Your task to perform on an android device: open app "Chime – Mobile Banking" (install if not already installed) and go to login screen Image 0: 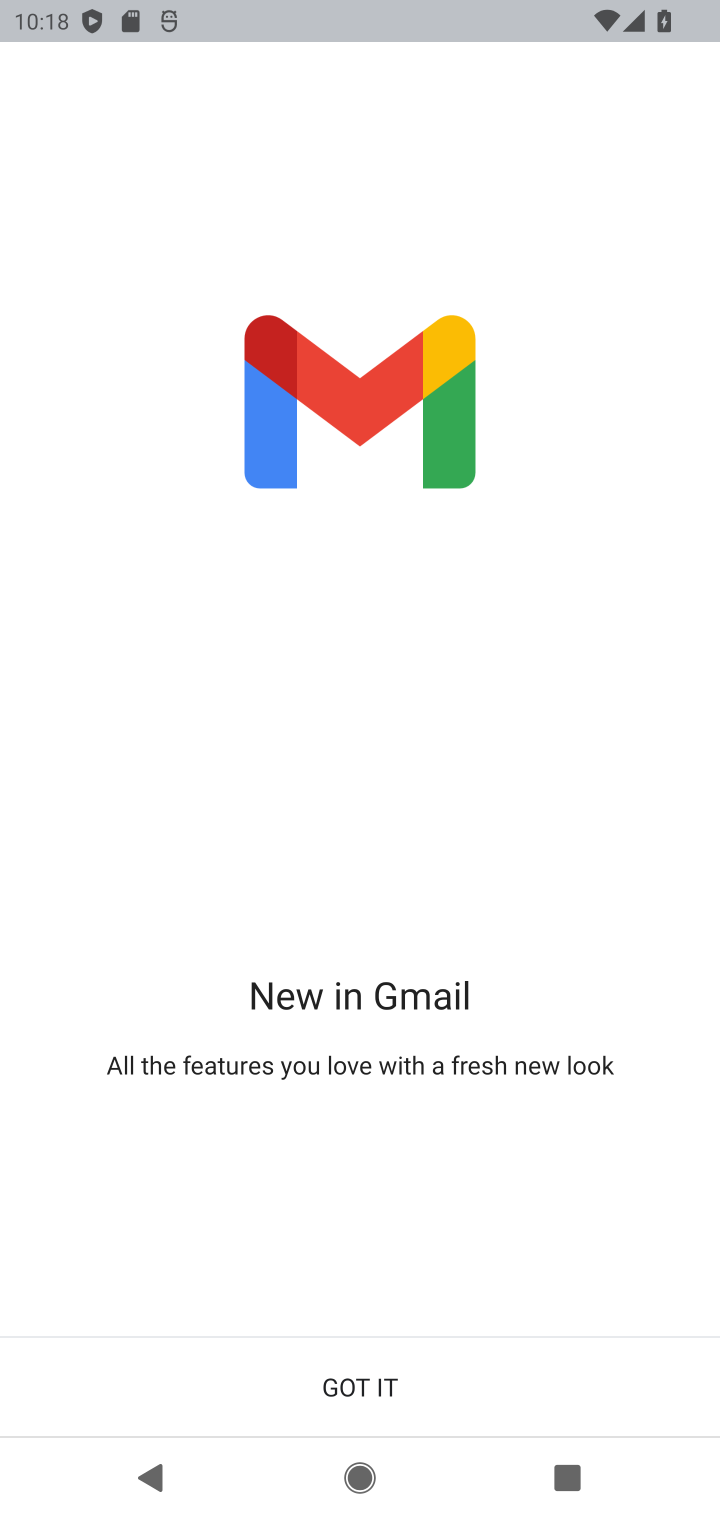
Step 0: press home button
Your task to perform on an android device: open app "Chime – Mobile Banking" (install if not already installed) and go to login screen Image 1: 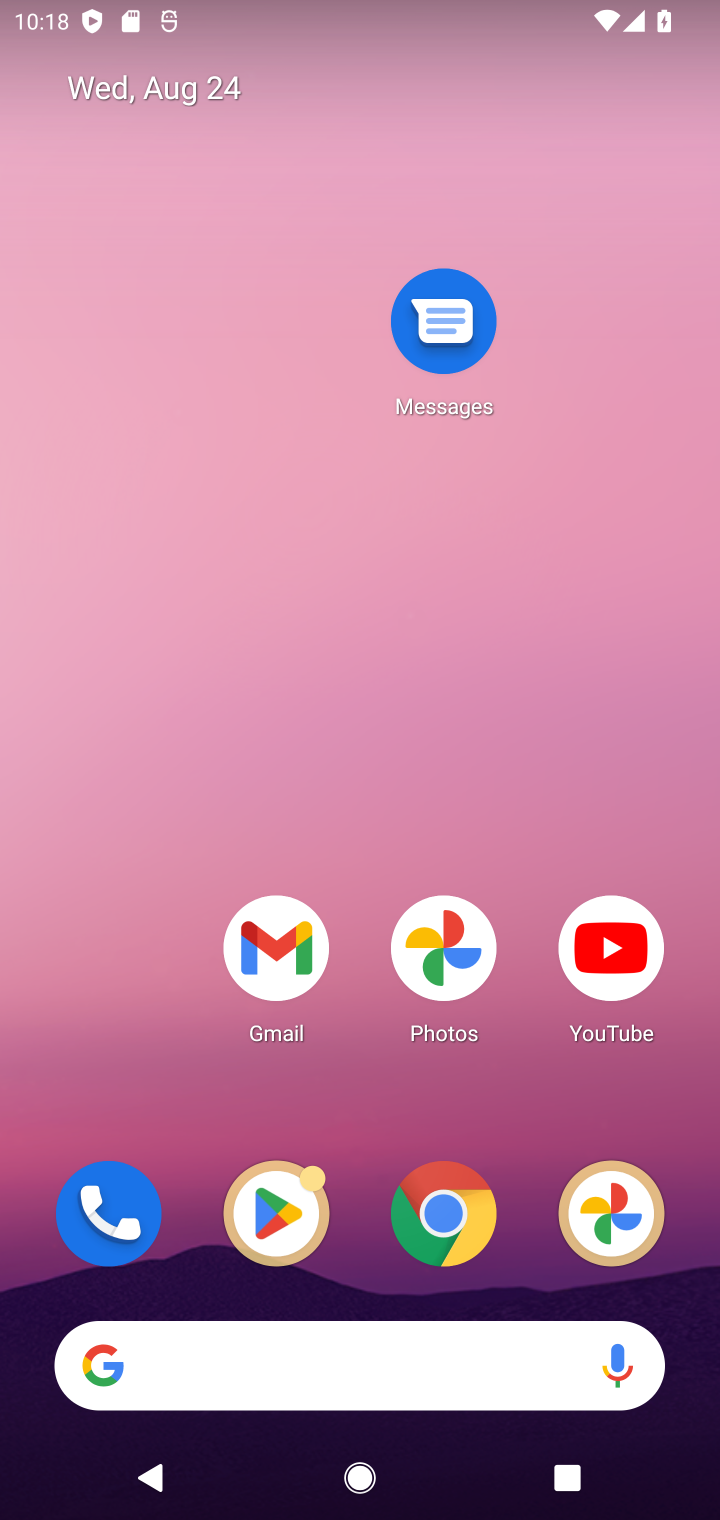
Step 1: click (269, 1218)
Your task to perform on an android device: open app "Chime – Mobile Banking" (install if not already installed) and go to login screen Image 2: 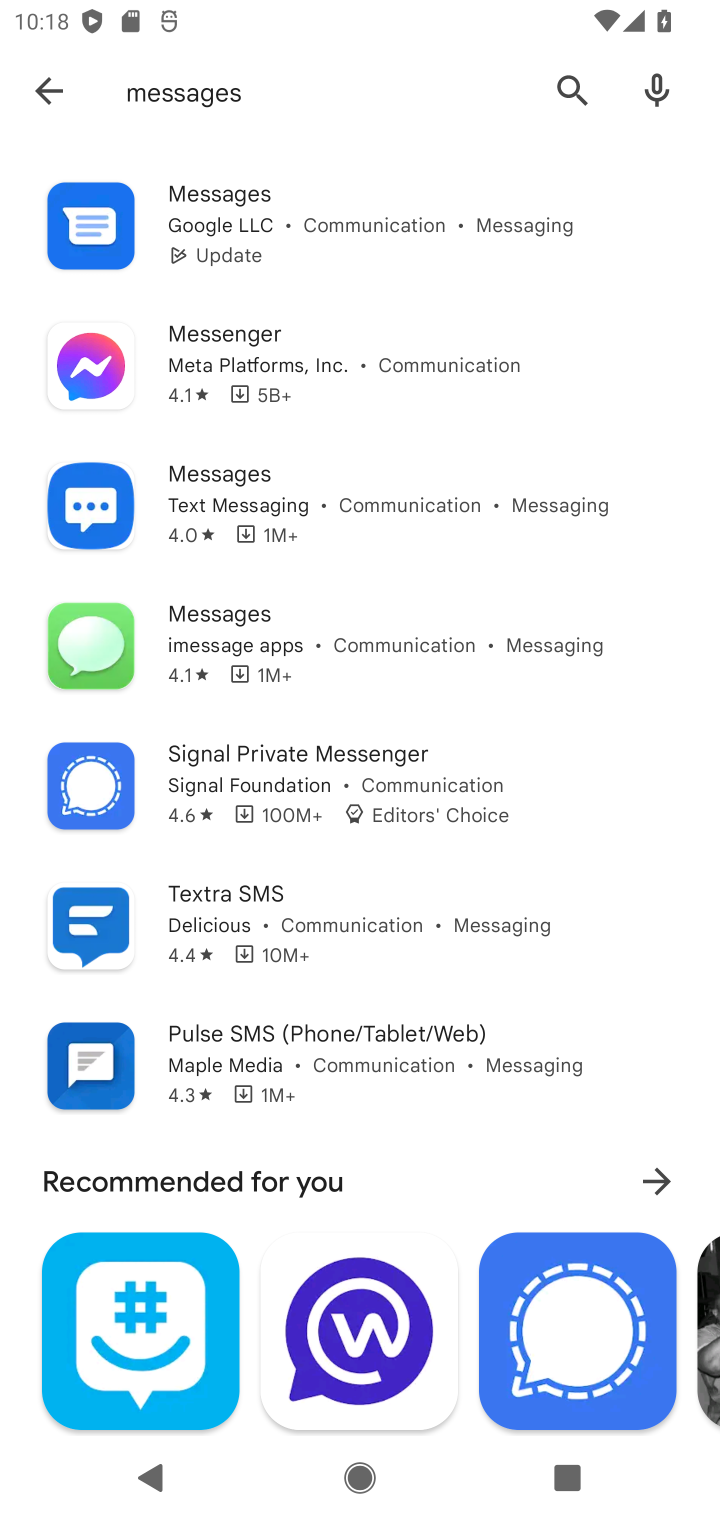
Step 2: click (229, 67)
Your task to perform on an android device: open app "Chime – Mobile Banking" (install if not already installed) and go to login screen Image 3: 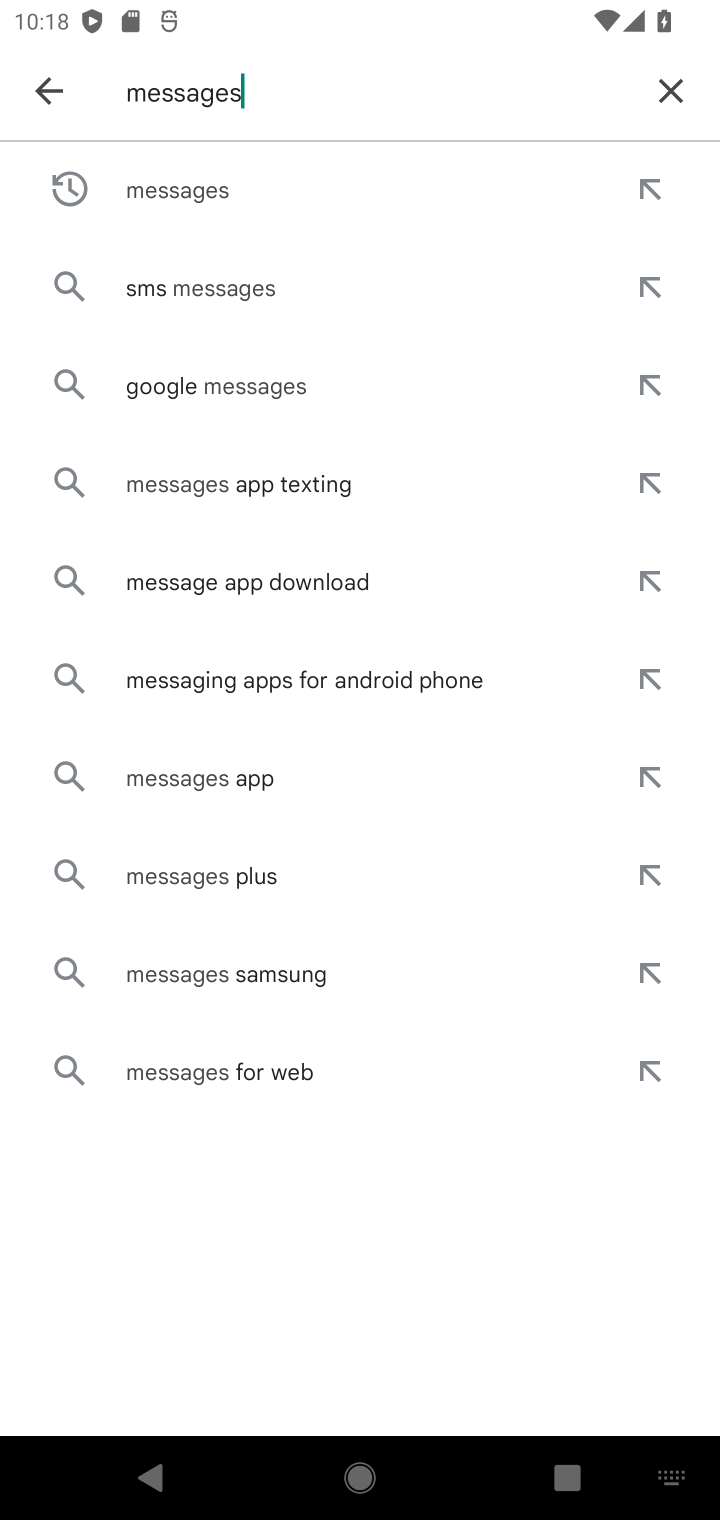
Step 3: click (666, 76)
Your task to perform on an android device: open app "Chime – Mobile Banking" (install if not already installed) and go to login screen Image 4: 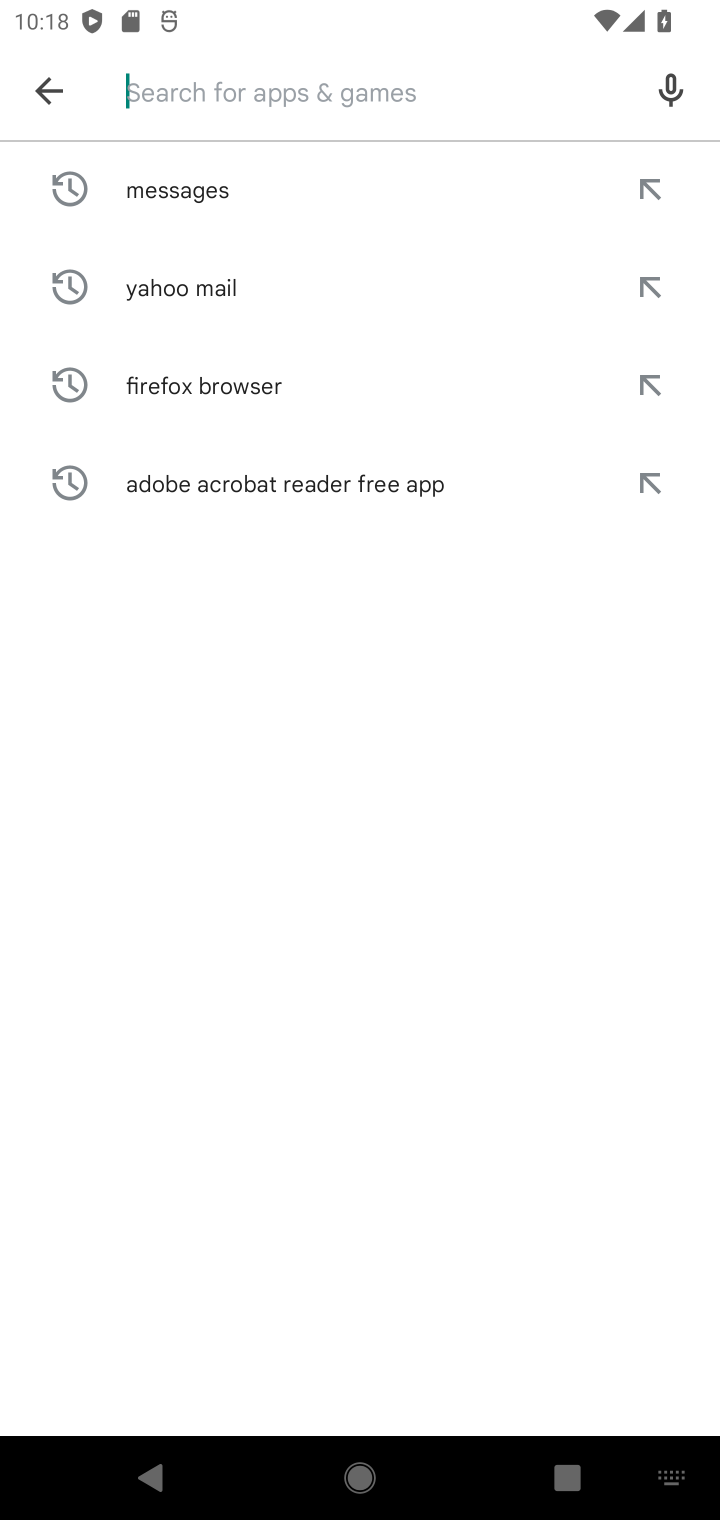
Step 4: type "chime"
Your task to perform on an android device: open app "Chime – Mobile Banking" (install if not already installed) and go to login screen Image 5: 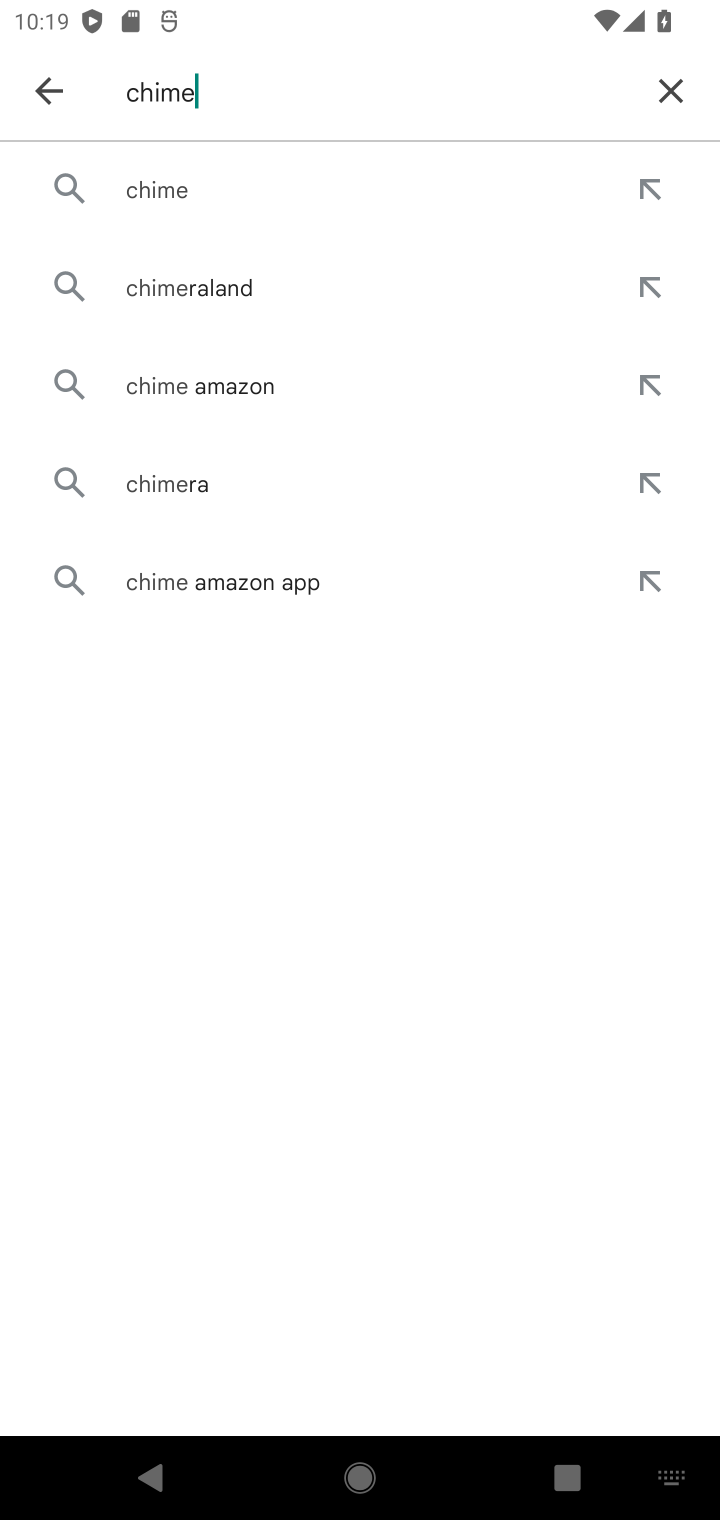
Step 5: click (183, 186)
Your task to perform on an android device: open app "Chime – Mobile Banking" (install if not already installed) and go to login screen Image 6: 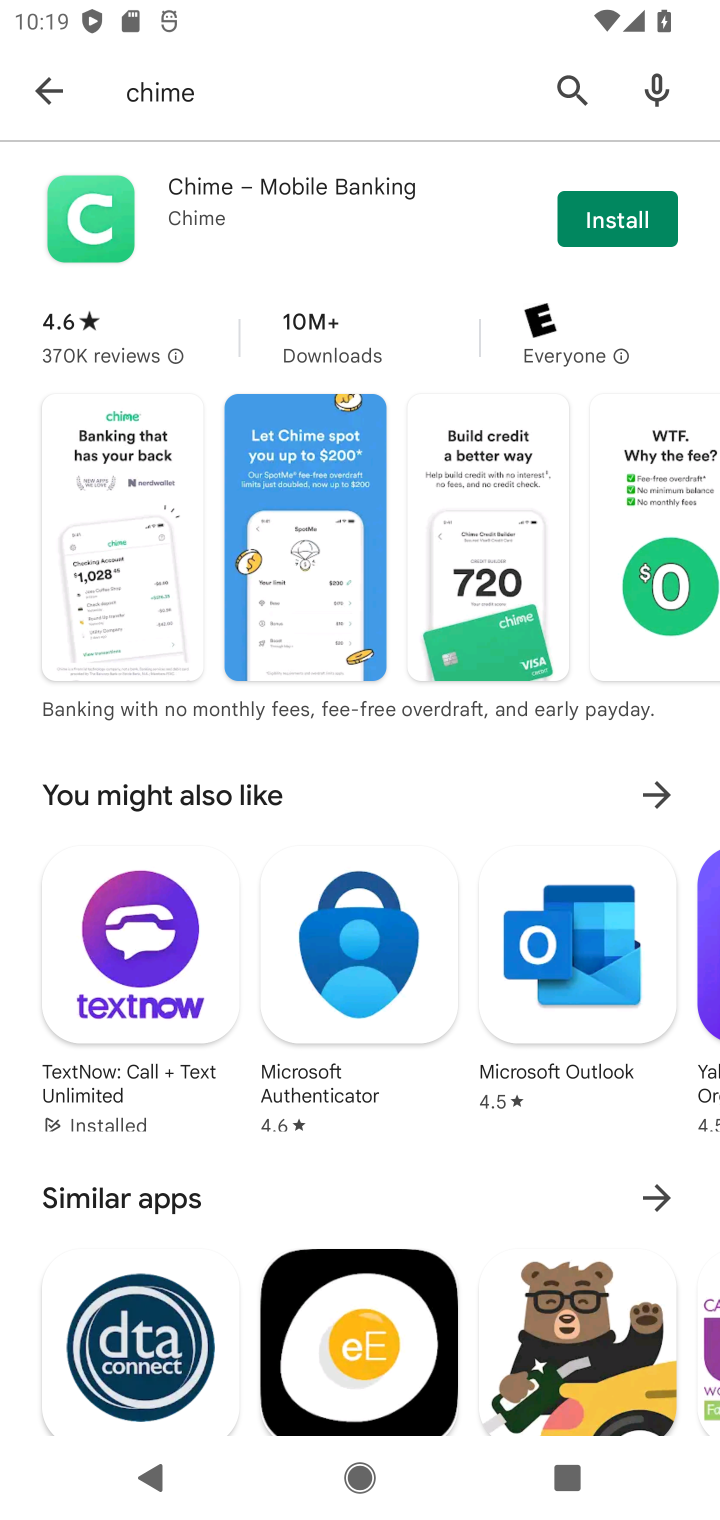
Step 6: click (616, 212)
Your task to perform on an android device: open app "Chime – Mobile Banking" (install if not already installed) and go to login screen Image 7: 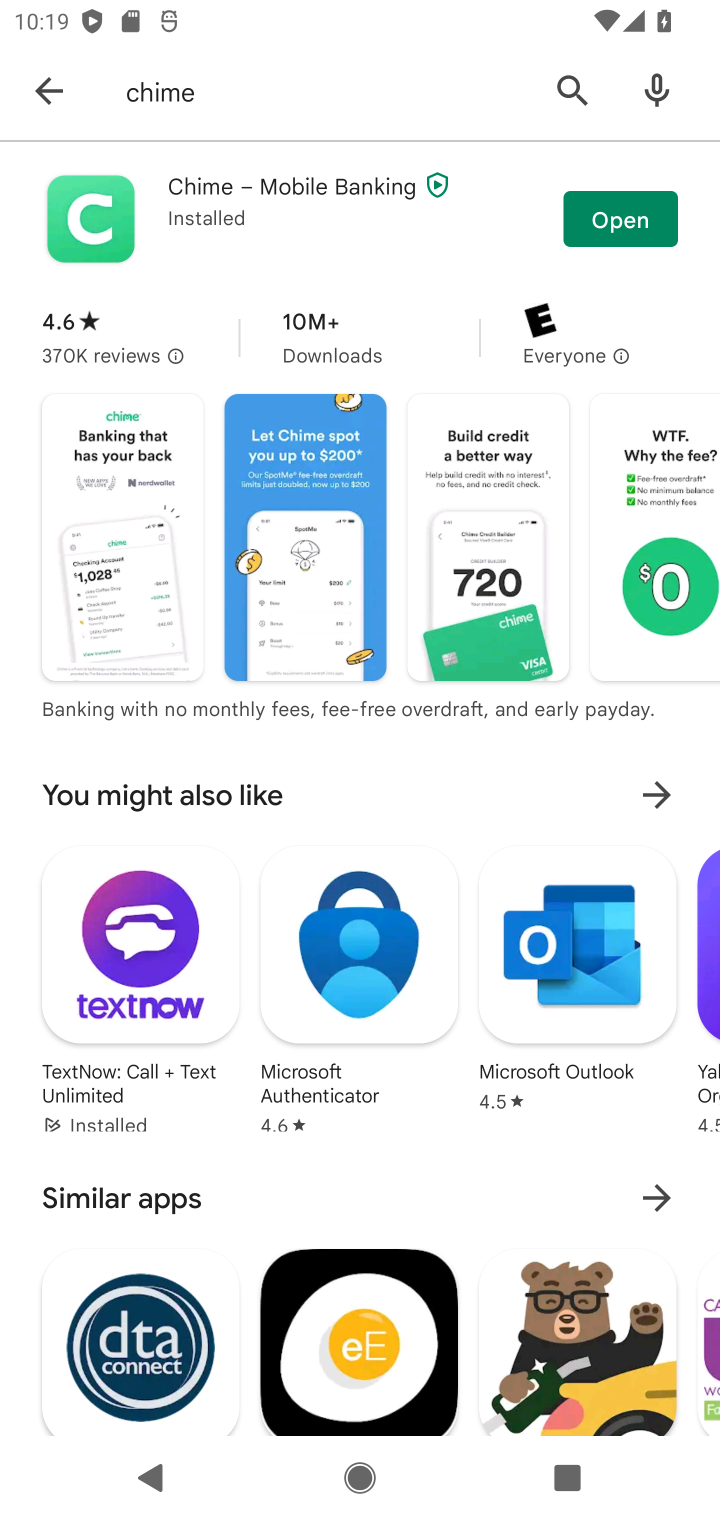
Step 7: click (636, 213)
Your task to perform on an android device: open app "Chime – Mobile Banking" (install if not already installed) and go to login screen Image 8: 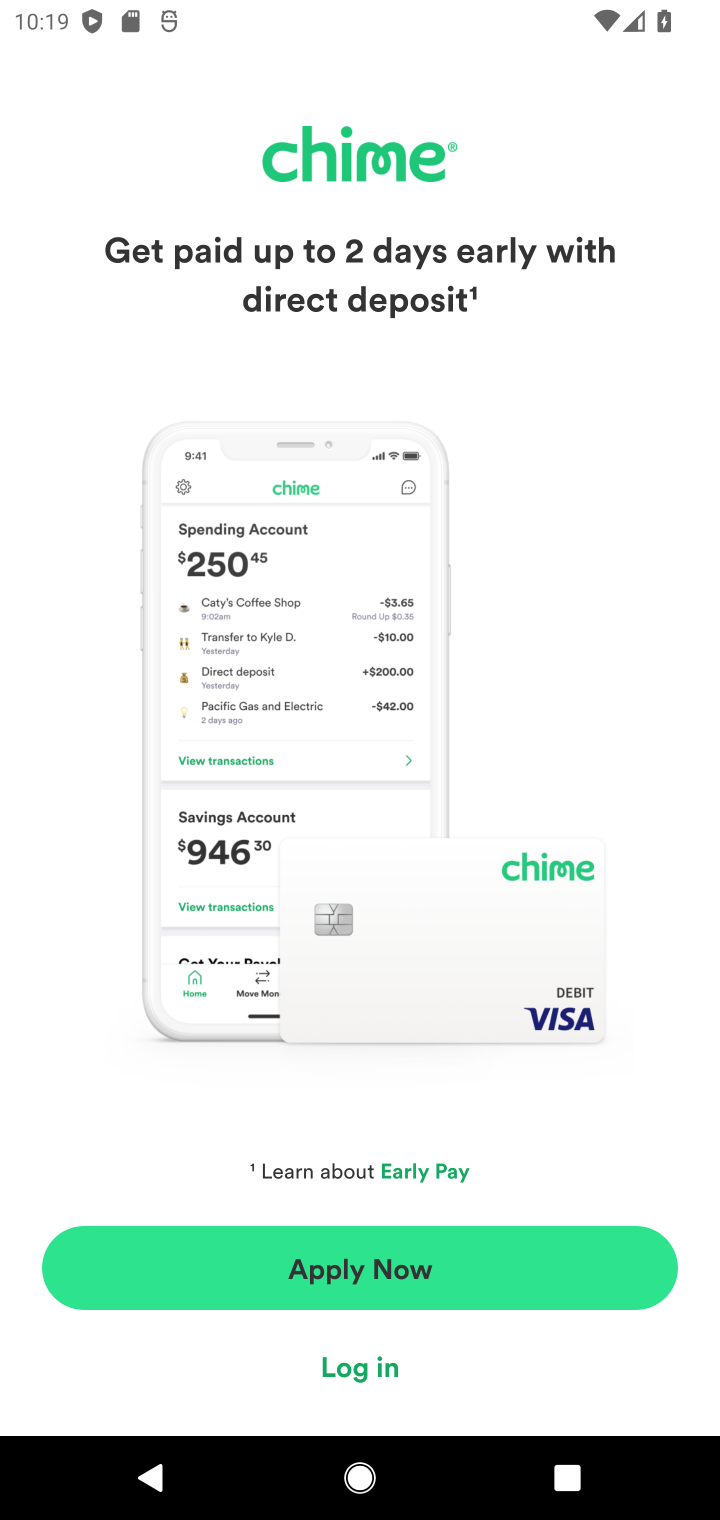
Step 8: click (348, 1361)
Your task to perform on an android device: open app "Chime – Mobile Banking" (install if not already installed) and go to login screen Image 9: 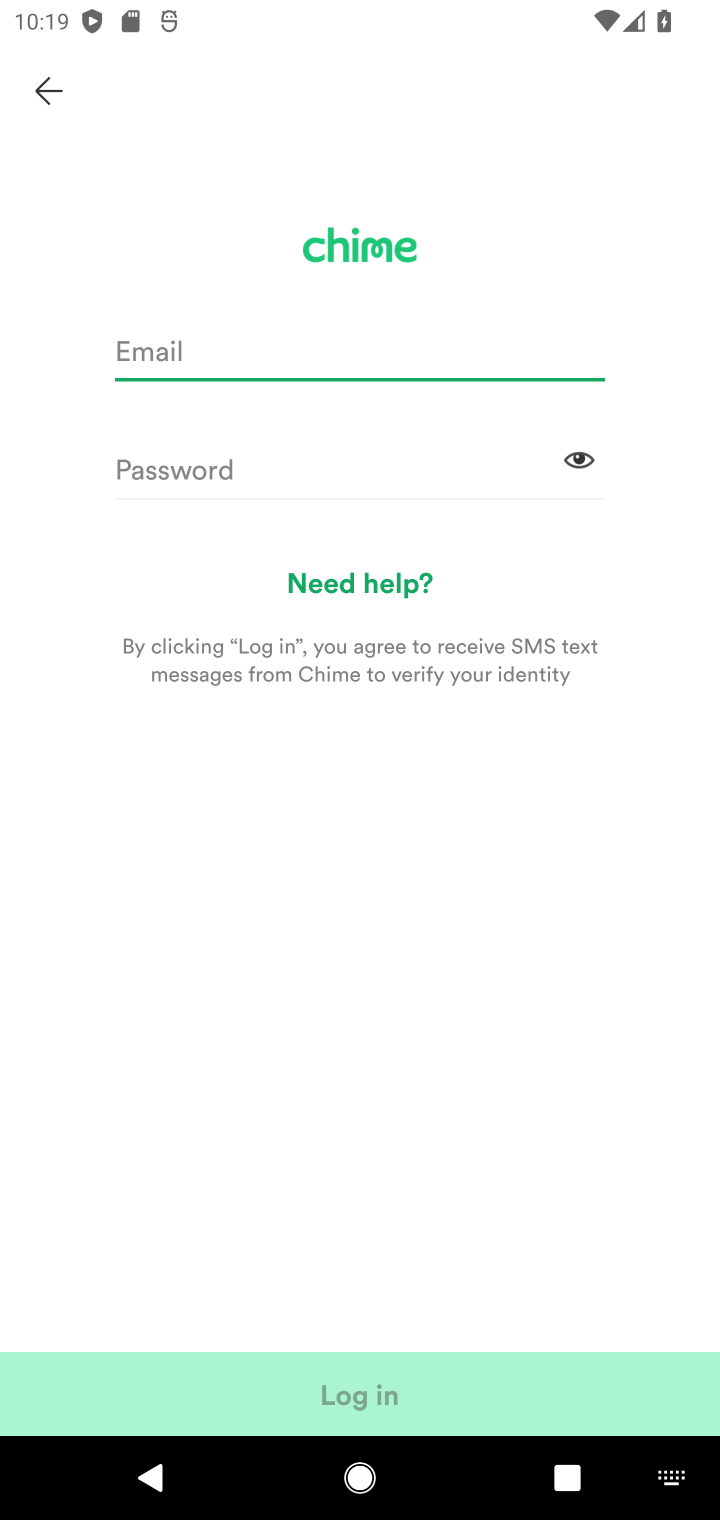
Step 9: task complete